Your task to perform on an android device: Open internet settings Image 0: 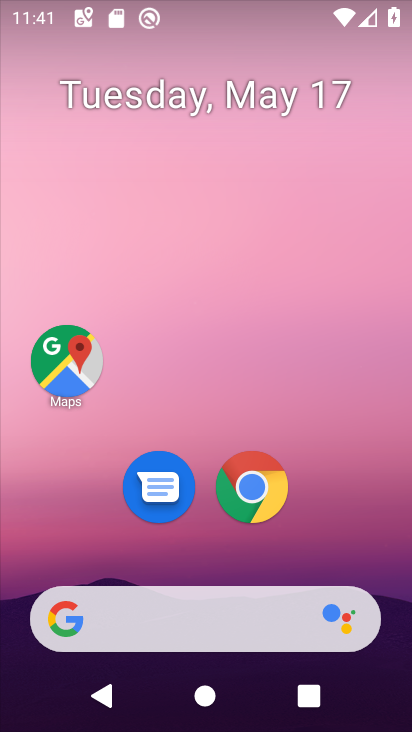
Step 0: drag from (398, 574) to (350, 63)
Your task to perform on an android device: Open internet settings Image 1: 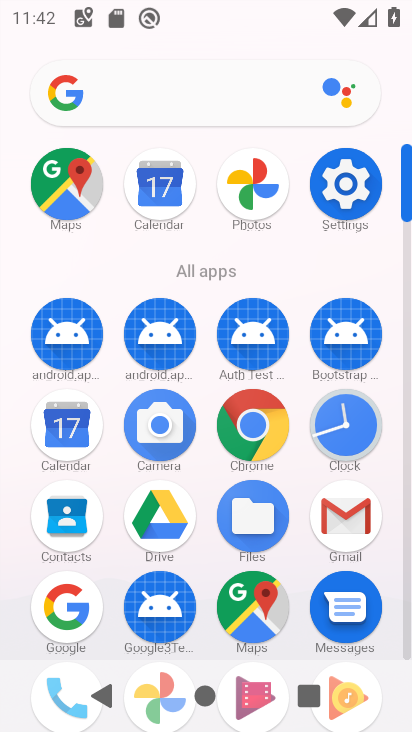
Step 1: click (349, 171)
Your task to perform on an android device: Open internet settings Image 2: 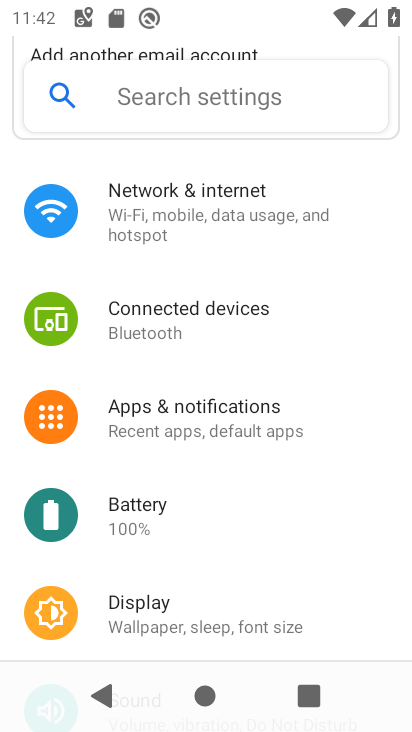
Step 2: click (287, 195)
Your task to perform on an android device: Open internet settings Image 3: 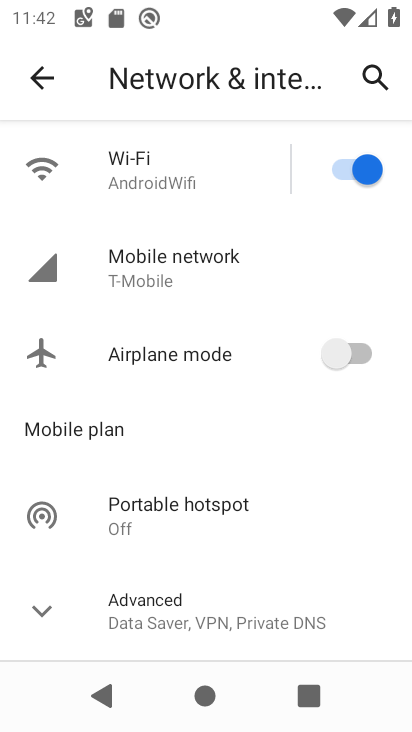
Step 3: task complete